Your task to perform on an android device: open a new tab in the chrome app Image 0: 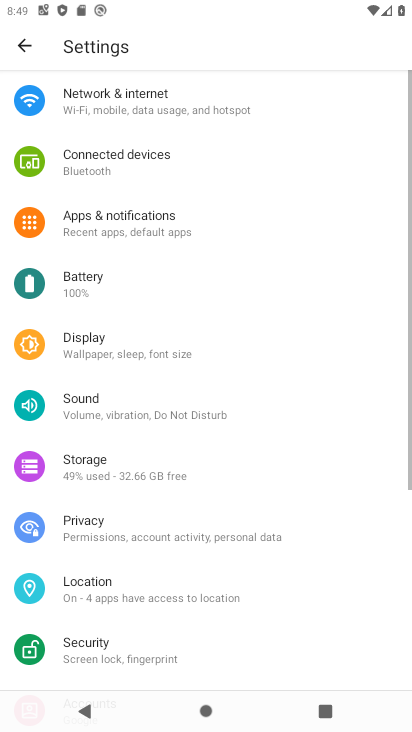
Step 0: press home button
Your task to perform on an android device: open a new tab in the chrome app Image 1: 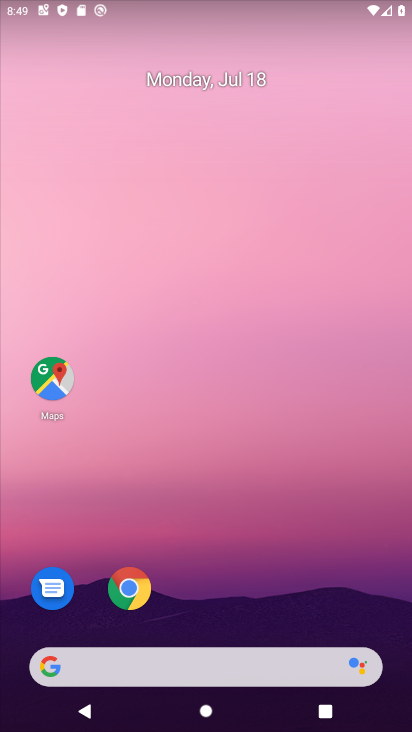
Step 1: click (124, 603)
Your task to perform on an android device: open a new tab in the chrome app Image 2: 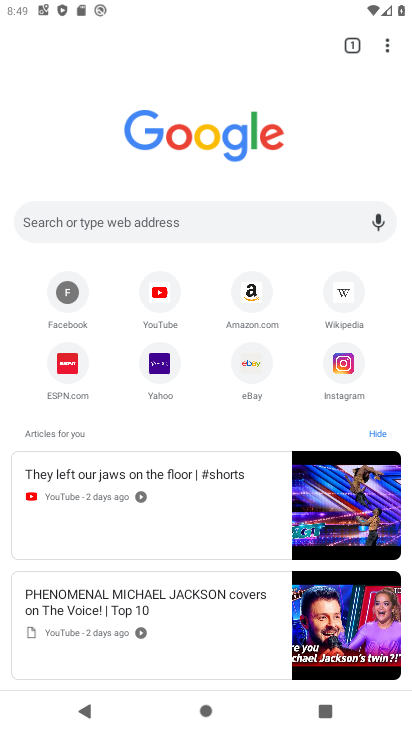
Step 2: click (389, 45)
Your task to perform on an android device: open a new tab in the chrome app Image 3: 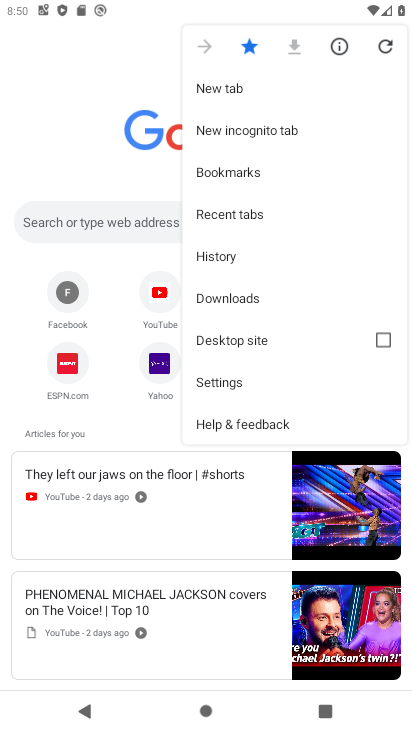
Step 3: click (241, 82)
Your task to perform on an android device: open a new tab in the chrome app Image 4: 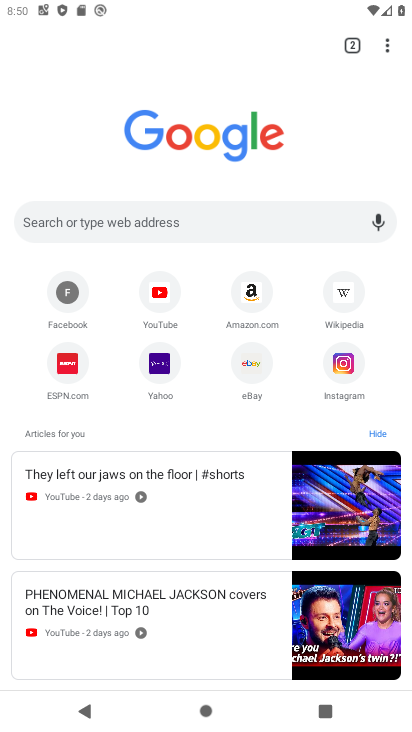
Step 4: task complete